Your task to perform on an android device: What's on my calendar tomorrow? Image 0: 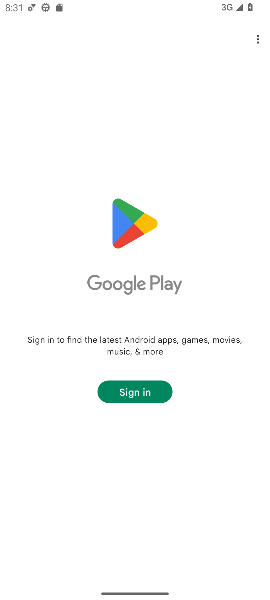
Step 0: press home button
Your task to perform on an android device: What's on my calendar tomorrow? Image 1: 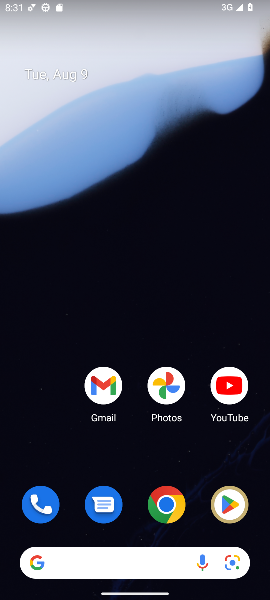
Step 1: drag from (129, 470) to (124, 2)
Your task to perform on an android device: What's on my calendar tomorrow? Image 2: 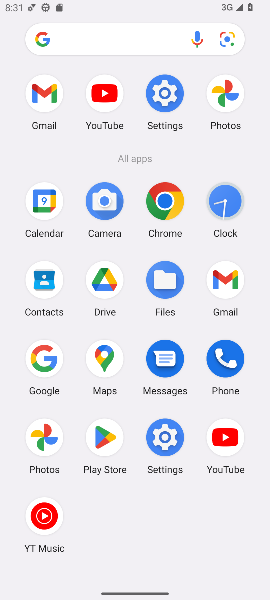
Step 2: click (42, 206)
Your task to perform on an android device: What's on my calendar tomorrow? Image 3: 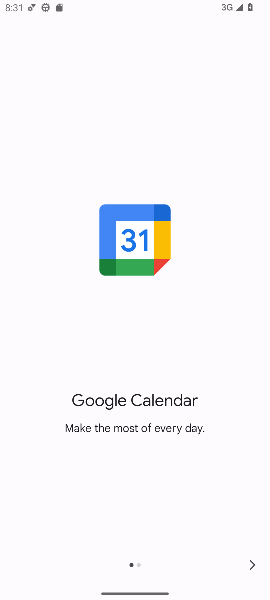
Step 3: click (249, 564)
Your task to perform on an android device: What's on my calendar tomorrow? Image 4: 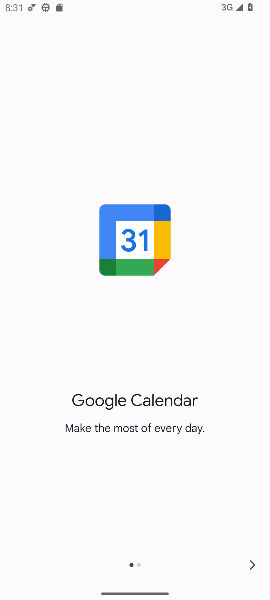
Step 4: click (249, 564)
Your task to perform on an android device: What's on my calendar tomorrow? Image 5: 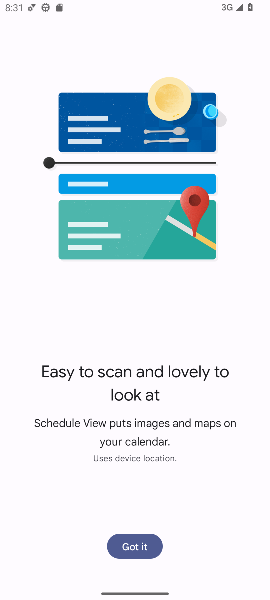
Step 5: click (138, 544)
Your task to perform on an android device: What's on my calendar tomorrow? Image 6: 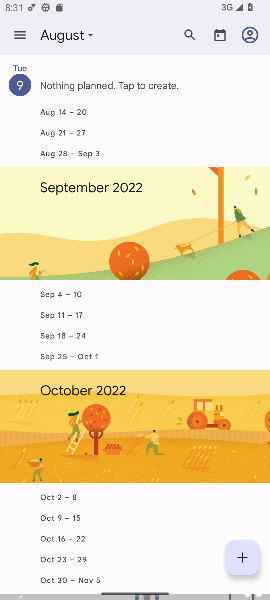
Step 6: click (16, 32)
Your task to perform on an android device: What's on my calendar tomorrow? Image 7: 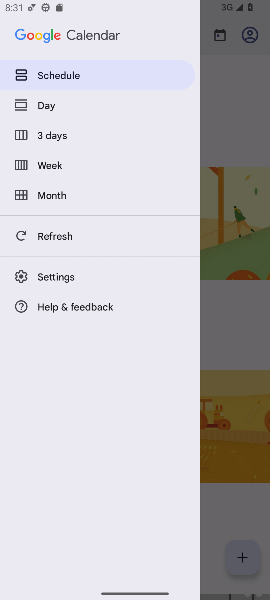
Step 7: click (46, 104)
Your task to perform on an android device: What's on my calendar tomorrow? Image 8: 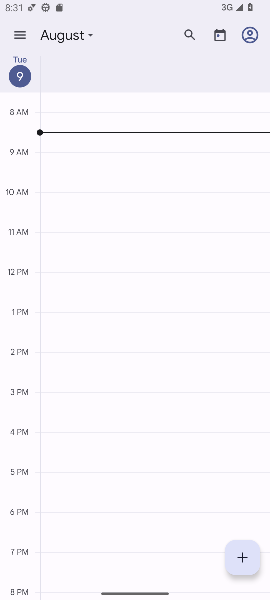
Step 8: click (91, 30)
Your task to perform on an android device: What's on my calendar tomorrow? Image 9: 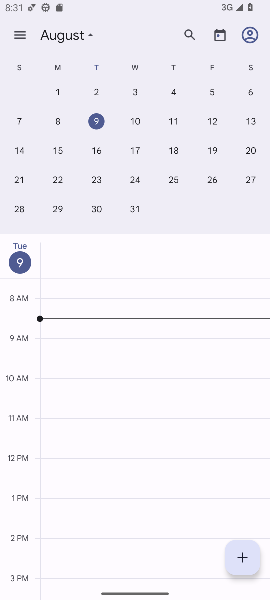
Step 9: click (133, 118)
Your task to perform on an android device: What's on my calendar tomorrow? Image 10: 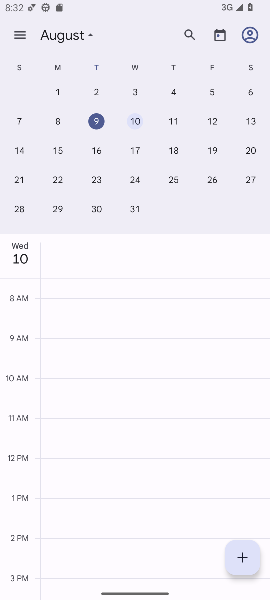
Step 10: task complete